Your task to perform on an android device: Go to CNN.com Image 0: 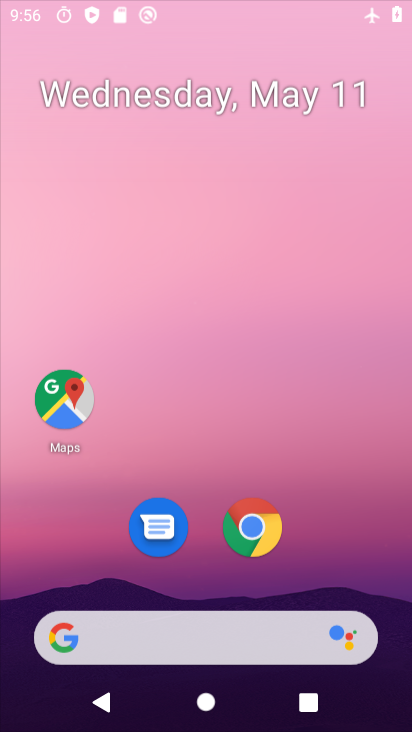
Step 0: click (222, 543)
Your task to perform on an android device: Go to CNN.com Image 1: 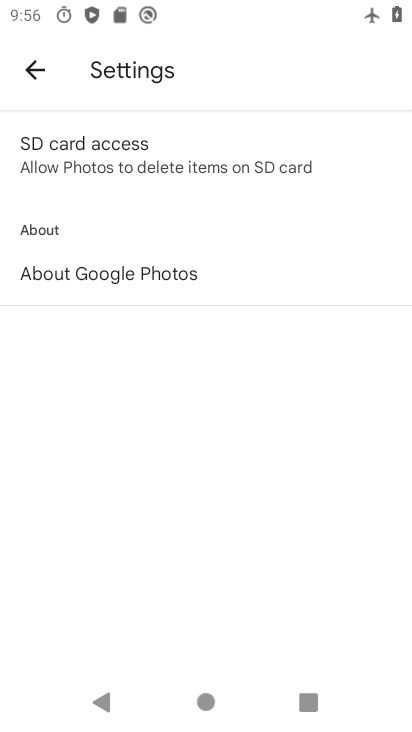
Step 1: press home button
Your task to perform on an android device: Go to CNN.com Image 2: 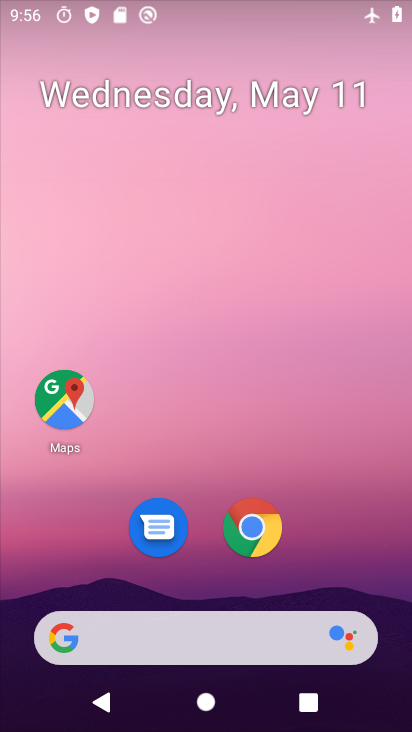
Step 2: click (246, 543)
Your task to perform on an android device: Go to CNN.com Image 3: 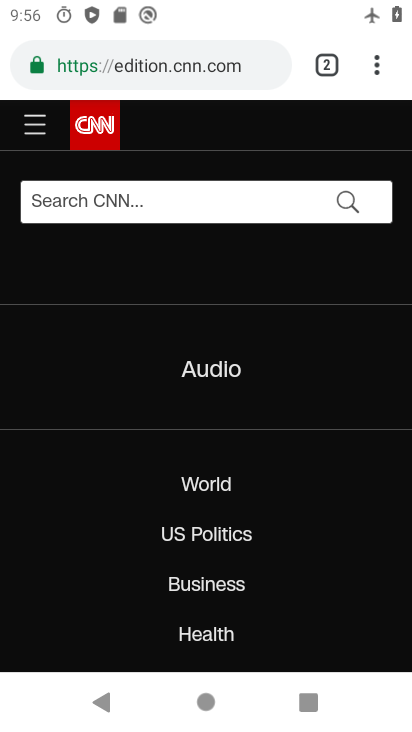
Step 3: click (242, 59)
Your task to perform on an android device: Go to CNN.com Image 4: 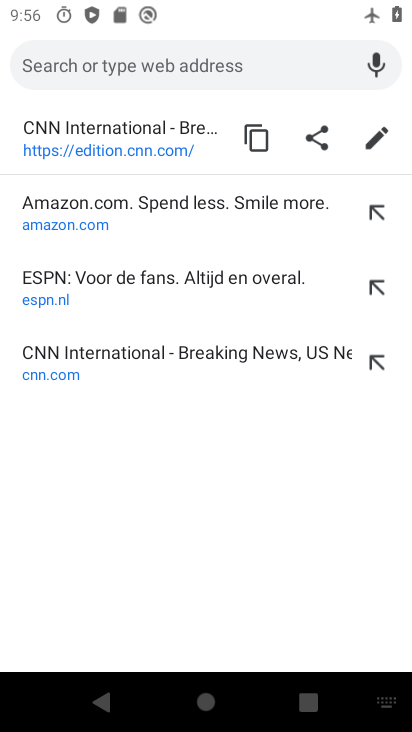
Step 4: click (130, 140)
Your task to perform on an android device: Go to CNN.com Image 5: 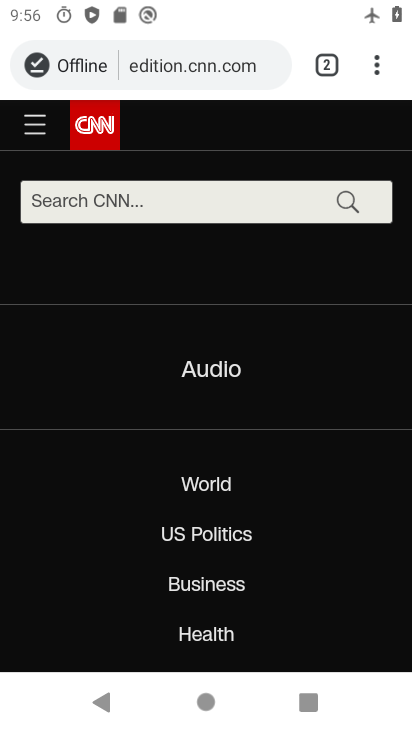
Step 5: task complete